Your task to perform on an android device: turn notification dots on Image 0: 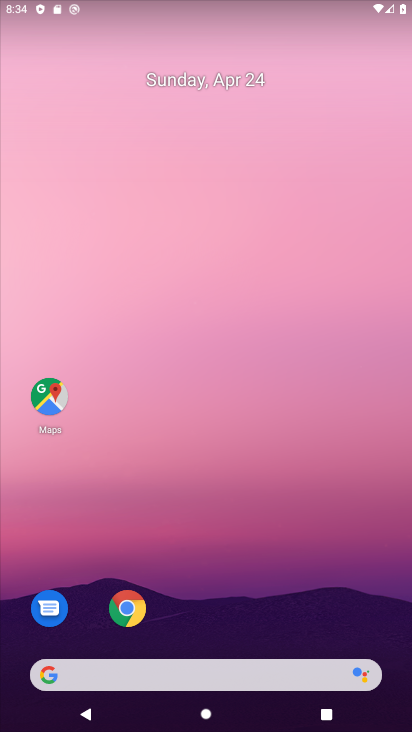
Step 0: drag from (227, 621) to (203, 179)
Your task to perform on an android device: turn notification dots on Image 1: 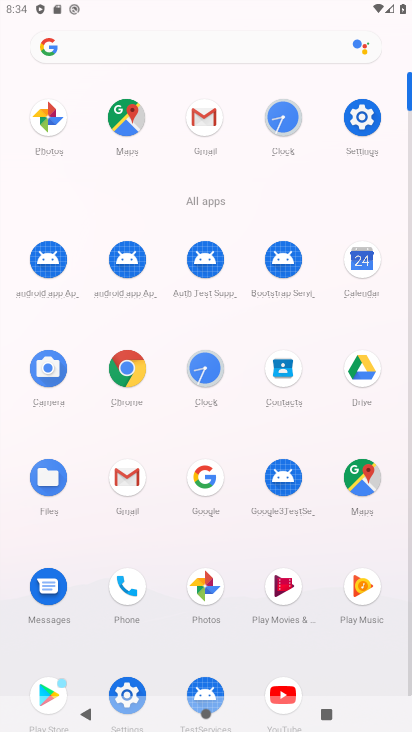
Step 1: click (364, 122)
Your task to perform on an android device: turn notification dots on Image 2: 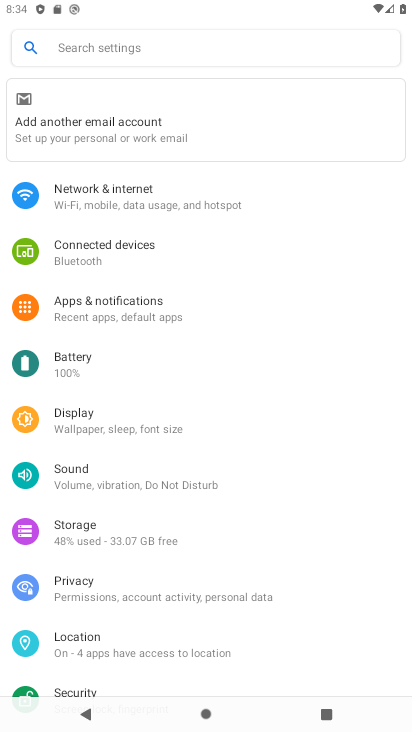
Step 2: click (174, 299)
Your task to perform on an android device: turn notification dots on Image 3: 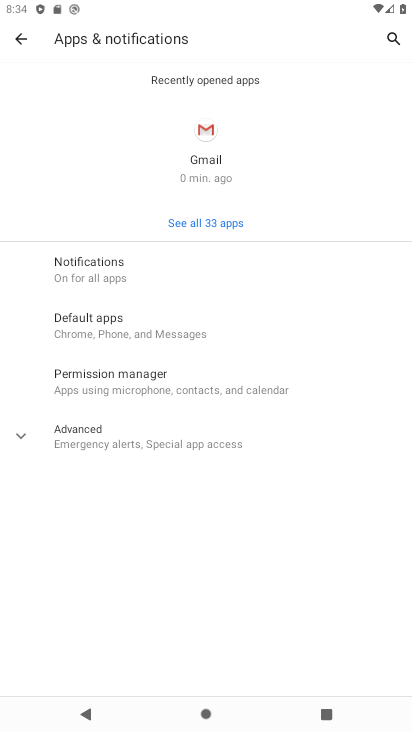
Step 3: click (138, 273)
Your task to perform on an android device: turn notification dots on Image 4: 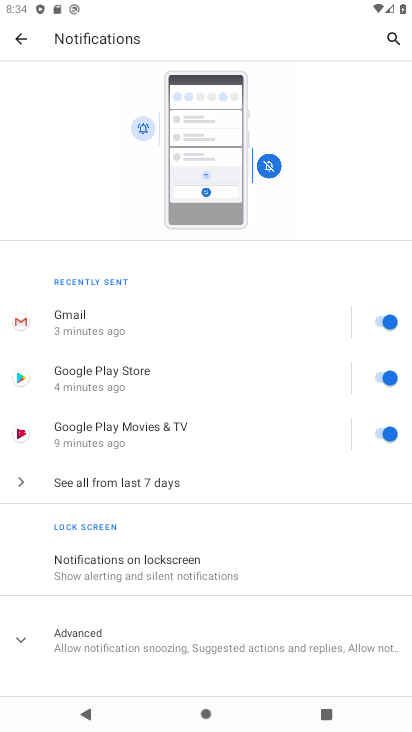
Step 4: drag from (248, 615) to (247, 429)
Your task to perform on an android device: turn notification dots on Image 5: 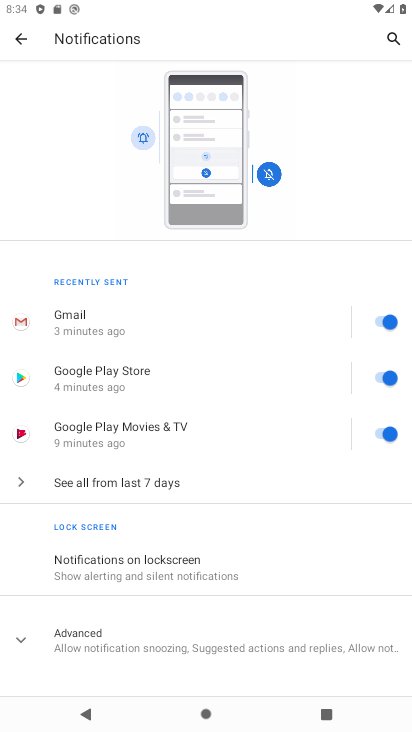
Step 5: drag from (250, 559) to (287, 426)
Your task to perform on an android device: turn notification dots on Image 6: 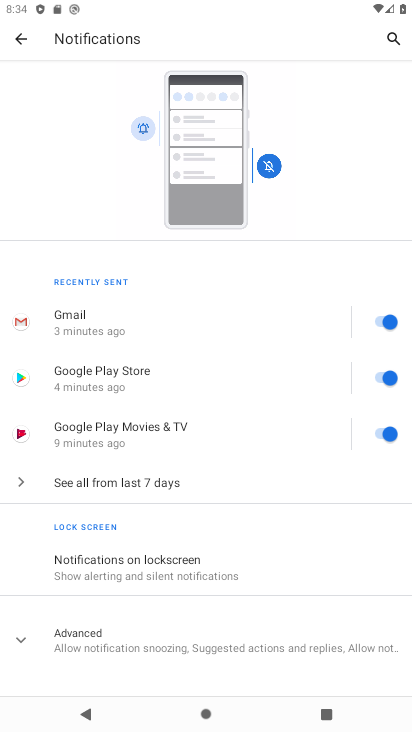
Step 6: click (177, 632)
Your task to perform on an android device: turn notification dots on Image 7: 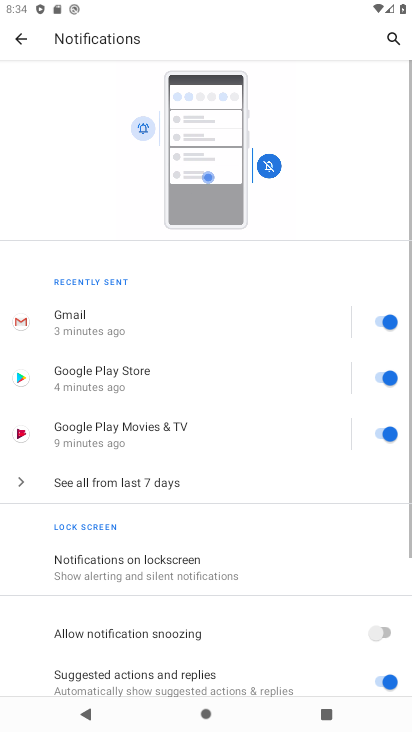
Step 7: task complete